Your task to perform on an android device: Go to Maps Image 0: 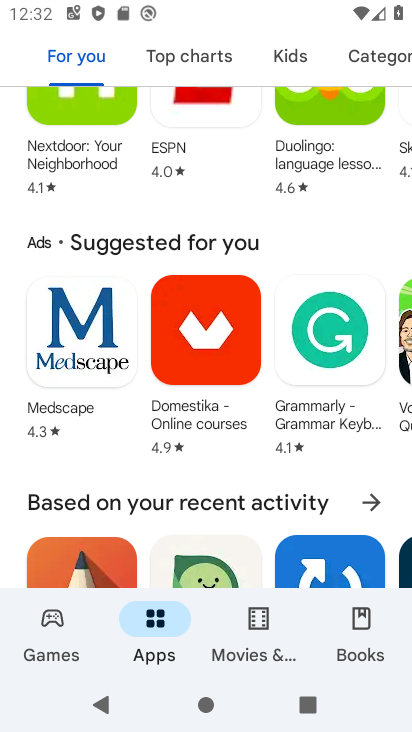
Step 0: press home button
Your task to perform on an android device: Go to Maps Image 1: 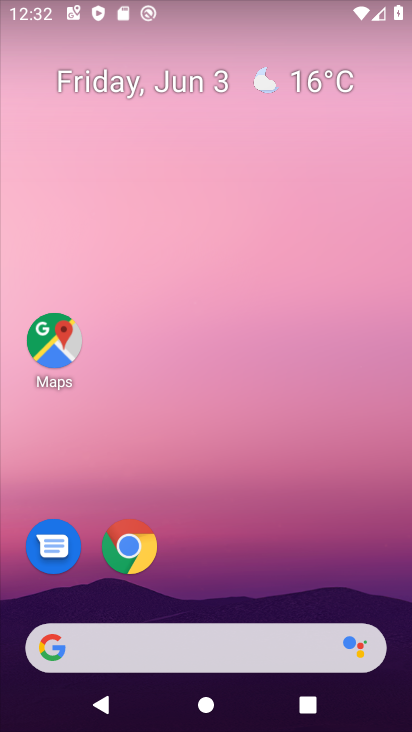
Step 1: click (51, 332)
Your task to perform on an android device: Go to Maps Image 2: 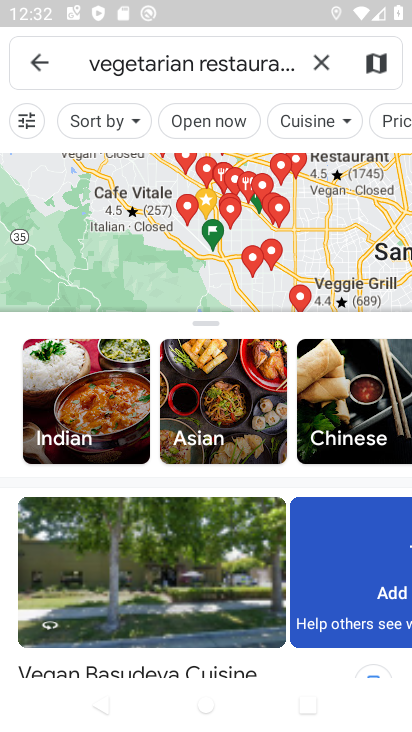
Step 2: task complete